Your task to perform on an android device: turn off notifications settings in the gmail app Image 0: 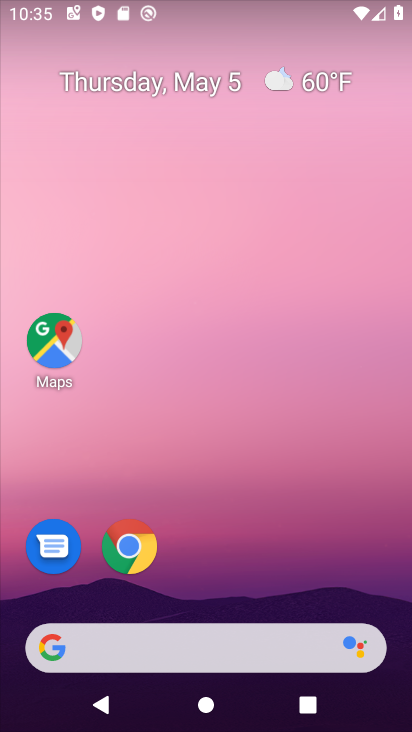
Step 0: drag from (255, 598) to (263, 91)
Your task to perform on an android device: turn off notifications settings in the gmail app Image 1: 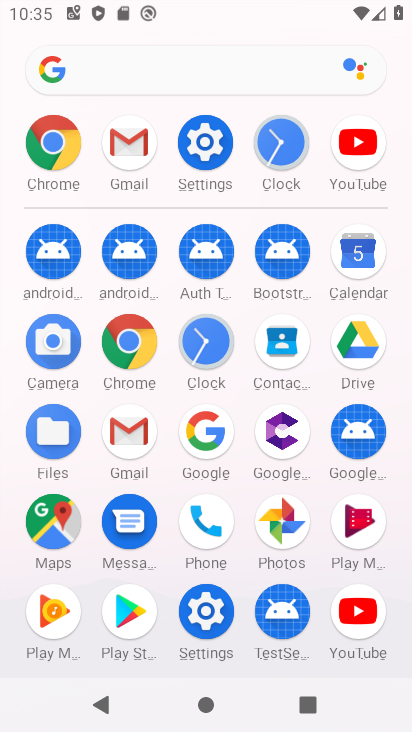
Step 1: click (137, 147)
Your task to perform on an android device: turn off notifications settings in the gmail app Image 2: 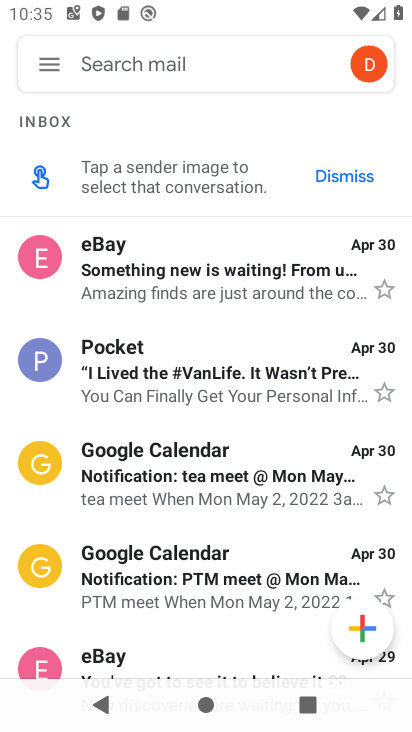
Step 2: click (53, 70)
Your task to perform on an android device: turn off notifications settings in the gmail app Image 3: 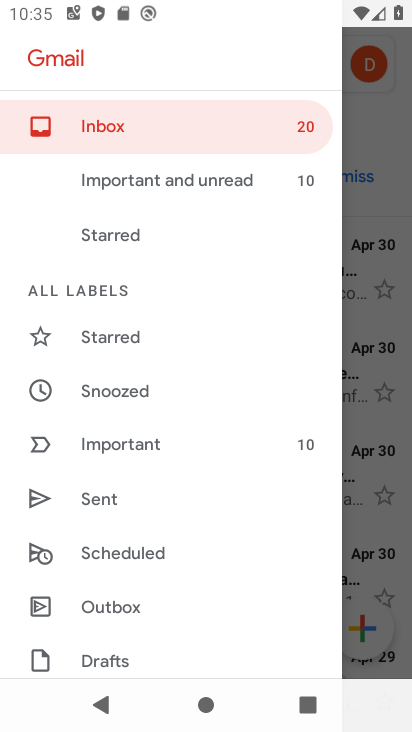
Step 3: drag from (155, 569) to (167, 368)
Your task to perform on an android device: turn off notifications settings in the gmail app Image 4: 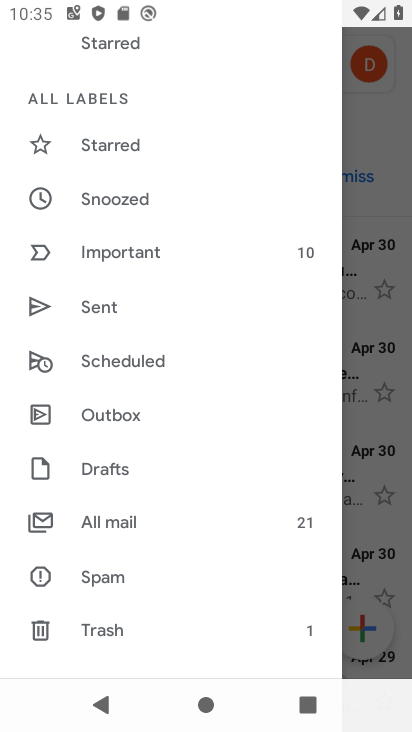
Step 4: drag from (134, 559) to (137, 382)
Your task to perform on an android device: turn off notifications settings in the gmail app Image 5: 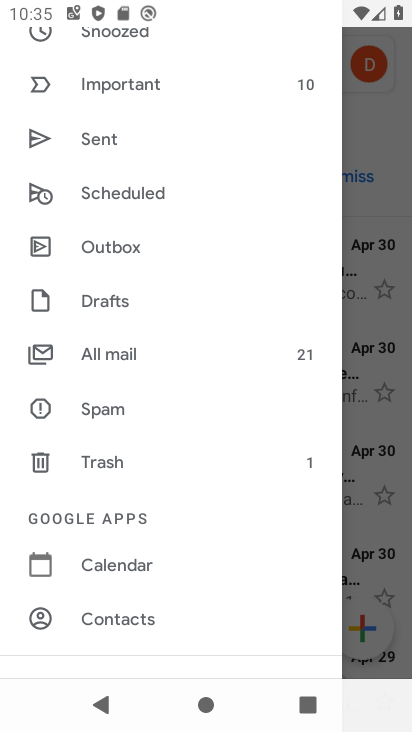
Step 5: drag from (147, 616) to (188, 392)
Your task to perform on an android device: turn off notifications settings in the gmail app Image 6: 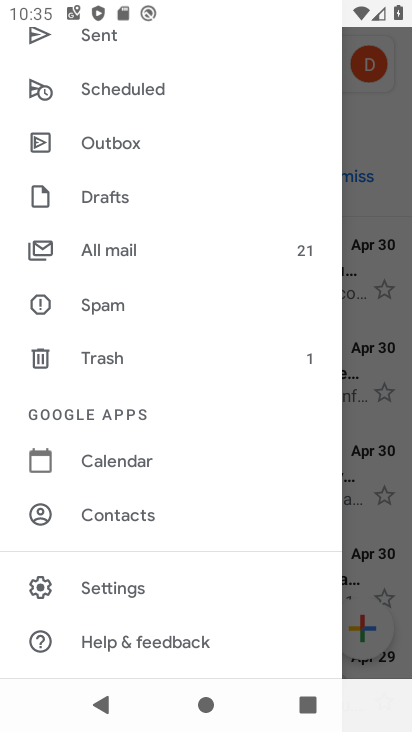
Step 6: click (161, 586)
Your task to perform on an android device: turn off notifications settings in the gmail app Image 7: 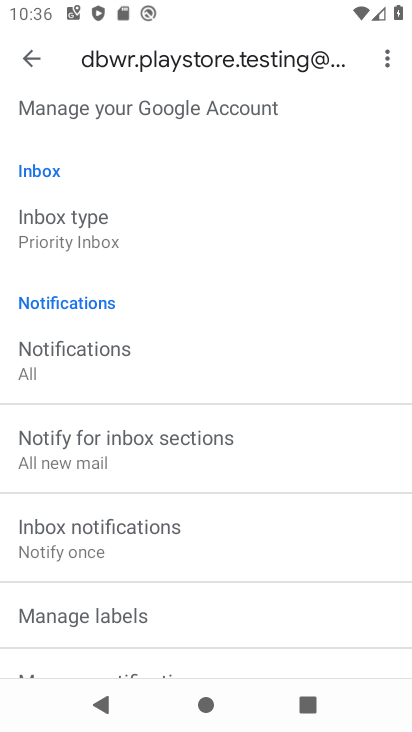
Step 7: drag from (83, 630) to (101, 446)
Your task to perform on an android device: turn off notifications settings in the gmail app Image 8: 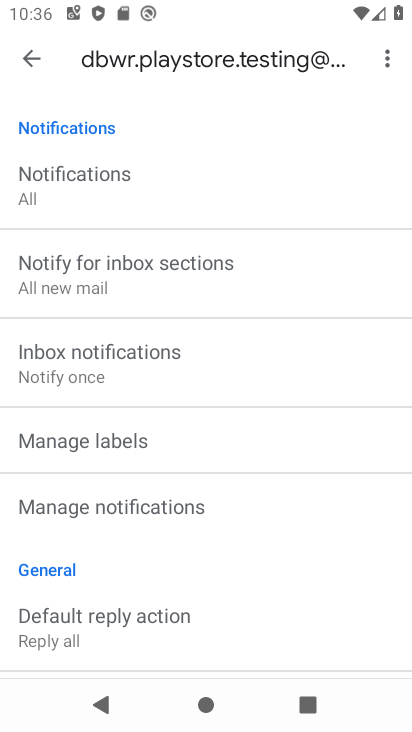
Step 8: click (78, 503)
Your task to perform on an android device: turn off notifications settings in the gmail app Image 9: 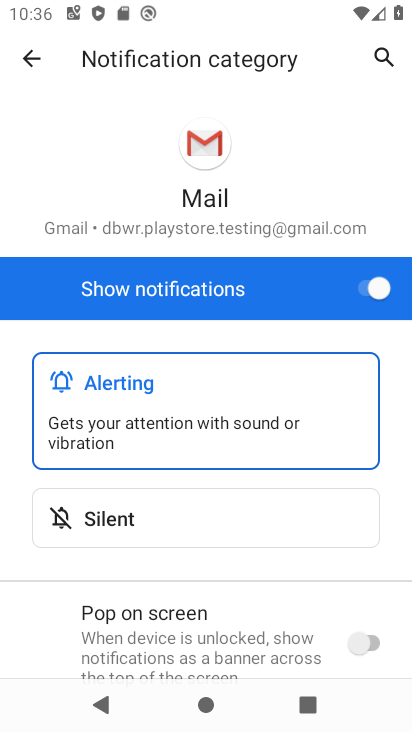
Step 9: click (371, 296)
Your task to perform on an android device: turn off notifications settings in the gmail app Image 10: 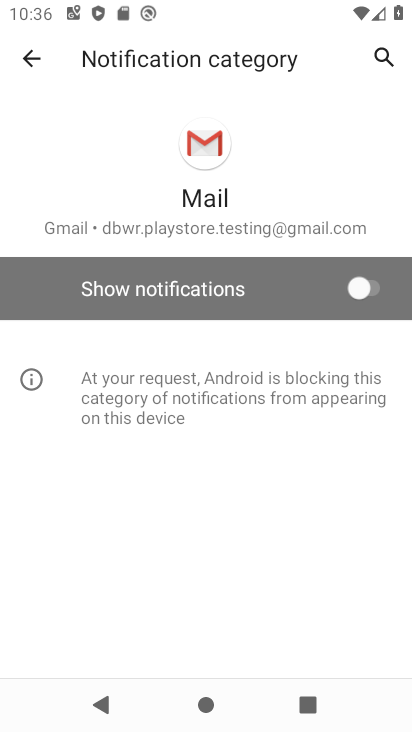
Step 10: task complete